Your task to perform on an android device: Go to Yahoo.com Image 0: 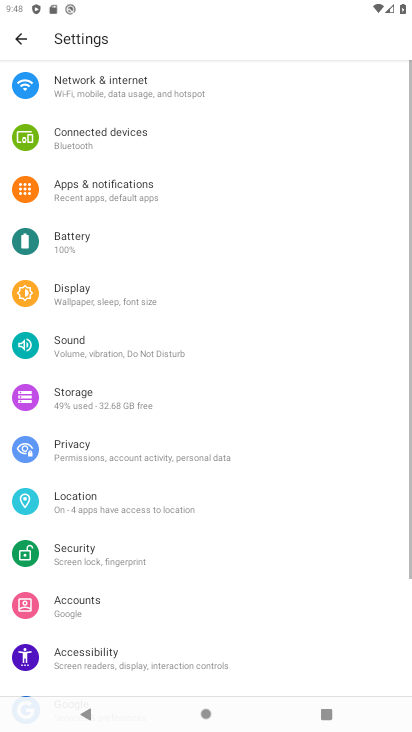
Step 0: press home button
Your task to perform on an android device: Go to Yahoo.com Image 1: 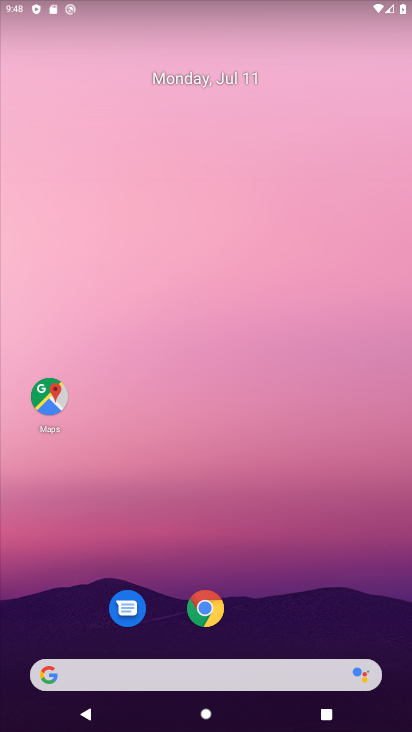
Step 1: click (128, 672)
Your task to perform on an android device: Go to Yahoo.com Image 2: 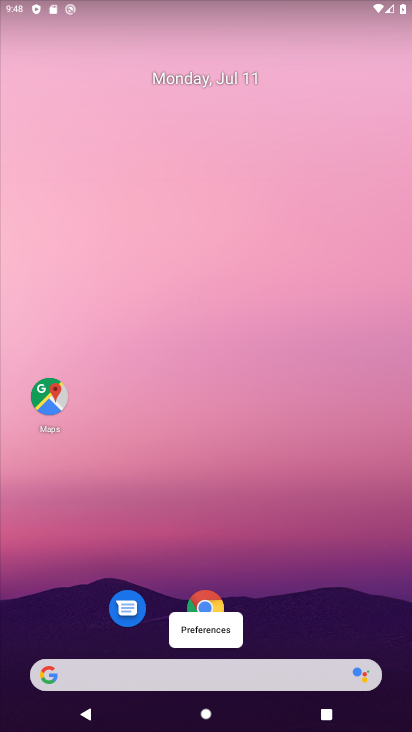
Step 2: click (129, 674)
Your task to perform on an android device: Go to Yahoo.com Image 3: 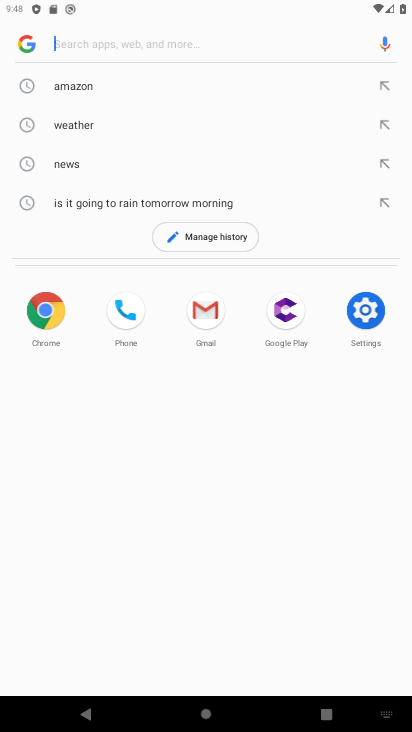
Step 3: type "Yahoo.com"
Your task to perform on an android device: Go to Yahoo.com Image 4: 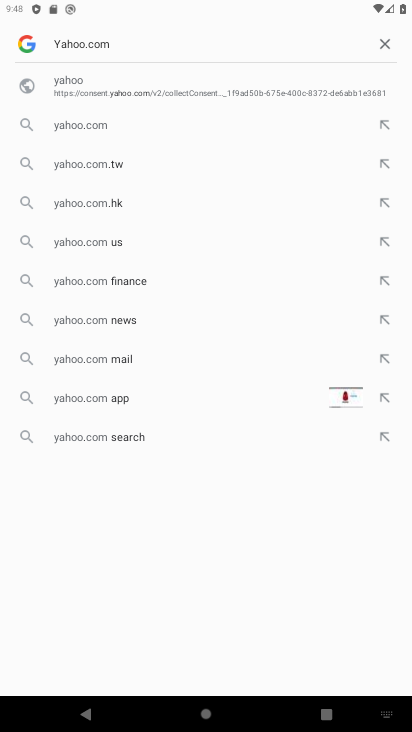
Step 4: click (71, 91)
Your task to perform on an android device: Go to Yahoo.com Image 5: 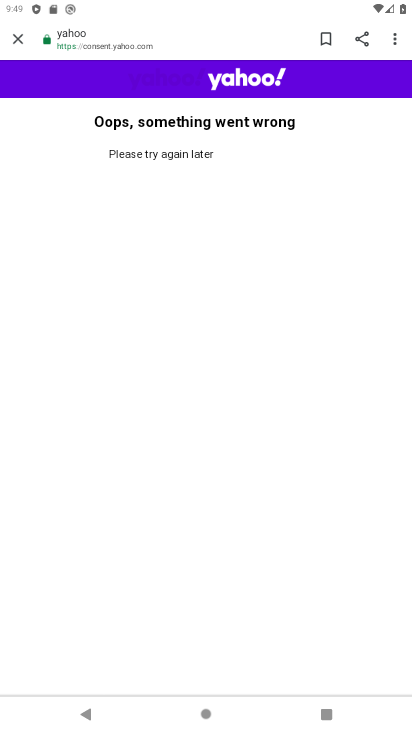
Step 5: task complete